Your task to perform on an android device: check out phone information Image 0: 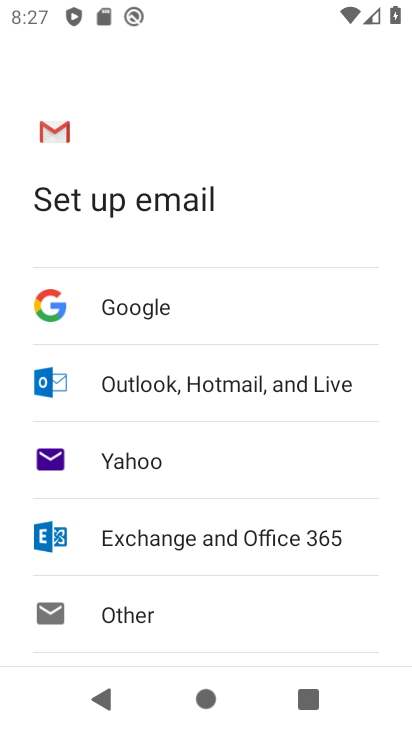
Step 0: press home button
Your task to perform on an android device: check out phone information Image 1: 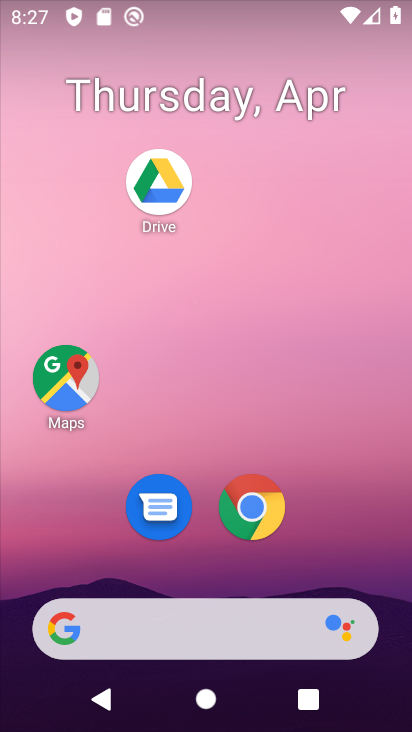
Step 1: drag from (352, 508) to (356, 136)
Your task to perform on an android device: check out phone information Image 2: 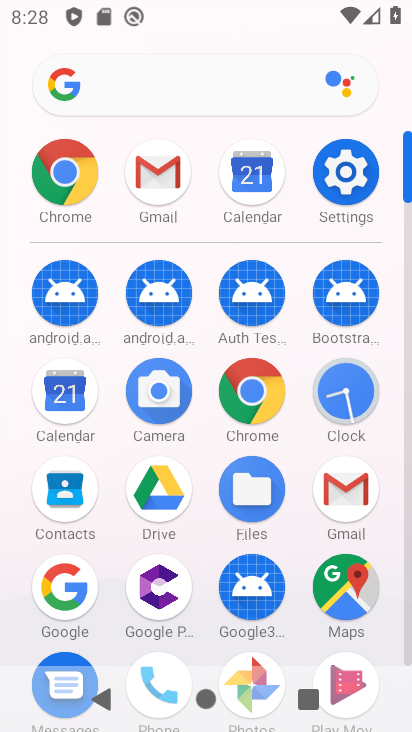
Step 2: drag from (202, 549) to (202, 255)
Your task to perform on an android device: check out phone information Image 3: 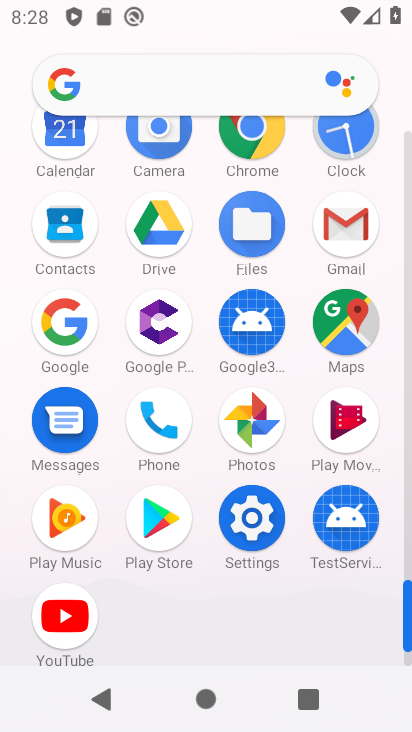
Step 3: click (170, 425)
Your task to perform on an android device: check out phone information Image 4: 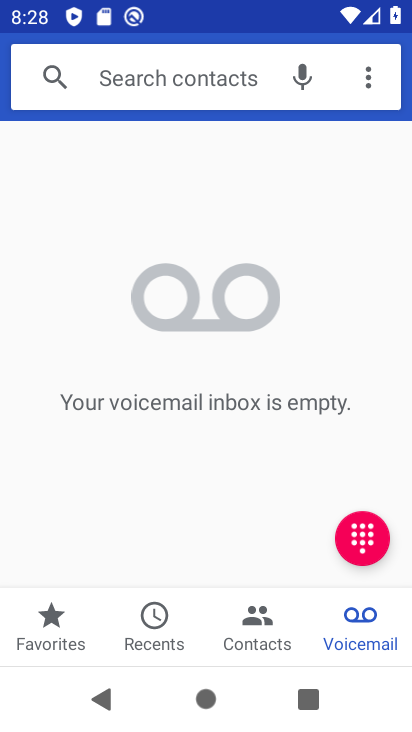
Step 4: click (145, 611)
Your task to perform on an android device: check out phone information Image 5: 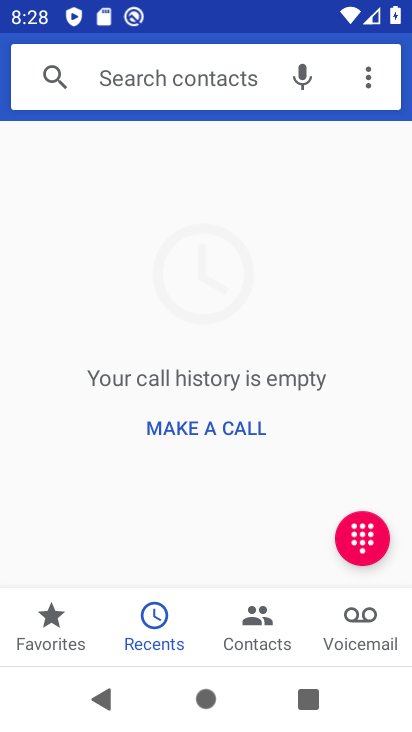
Step 5: task complete